Your task to perform on an android device: turn on location history Image 0: 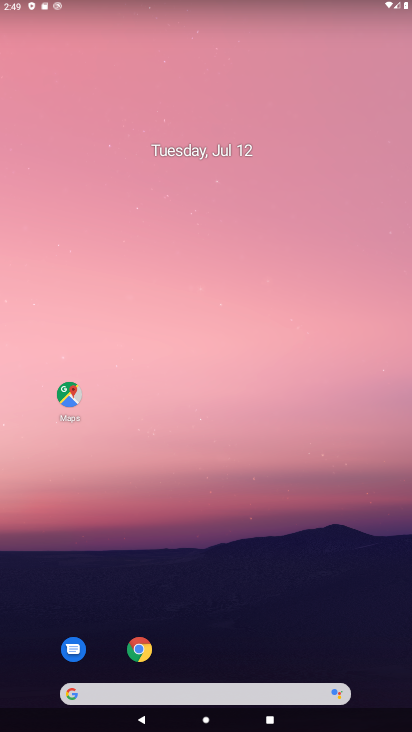
Step 0: click (208, 316)
Your task to perform on an android device: turn on location history Image 1: 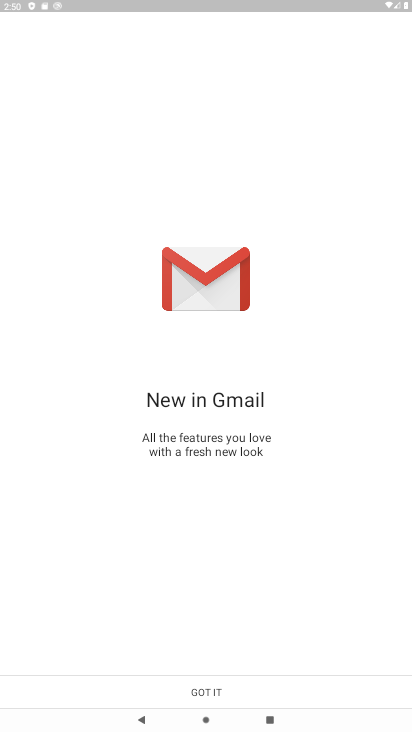
Step 1: press home button
Your task to perform on an android device: turn on location history Image 2: 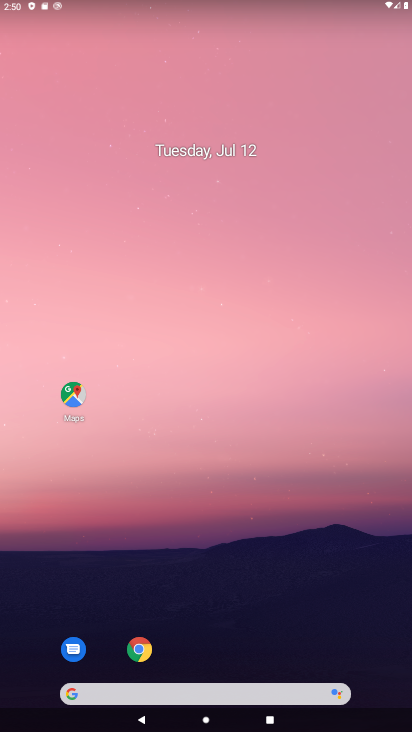
Step 2: drag from (194, 693) to (211, 97)
Your task to perform on an android device: turn on location history Image 3: 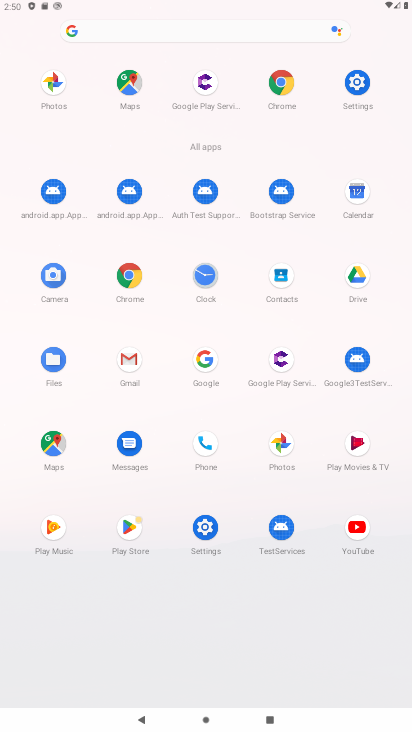
Step 3: click (348, 88)
Your task to perform on an android device: turn on location history Image 4: 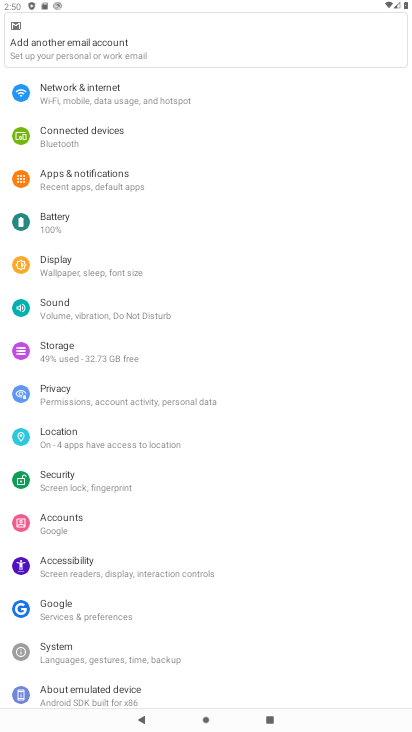
Step 4: click (70, 441)
Your task to perform on an android device: turn on location history Image 5: 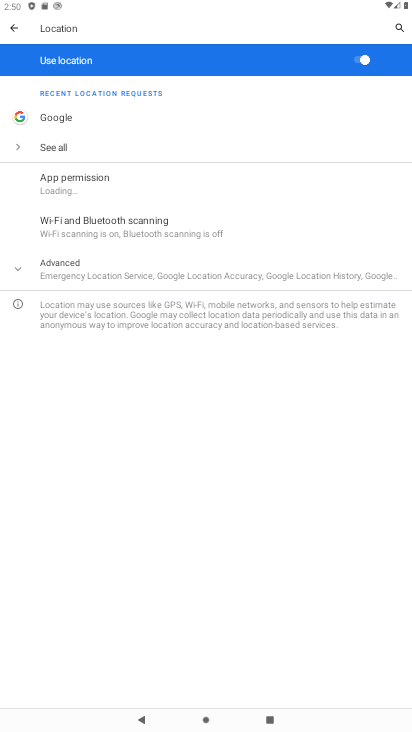
Step 5: click (53, 279)
Your task to perform on an android device: turn on location history Image 6: 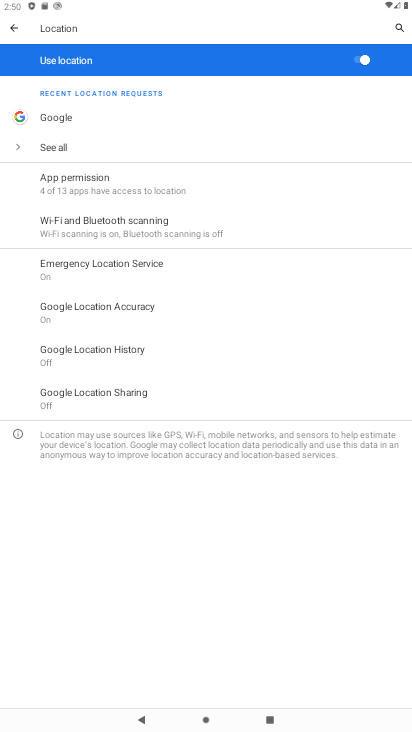
Step 6: click (145, 346)
Your task to perform on an android device: turn on location history Image 7: 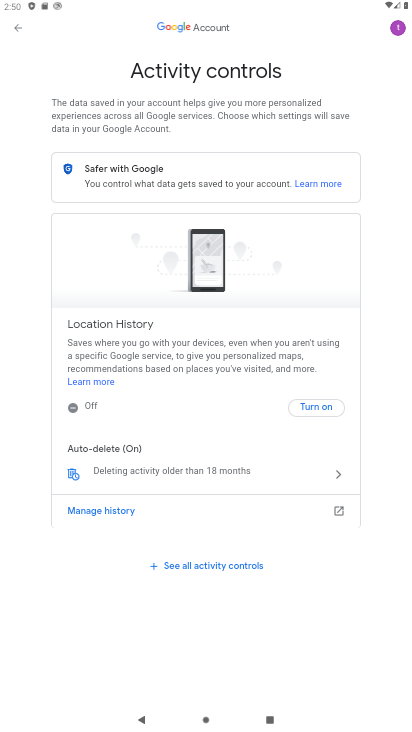
Step 7: click (321, 398)
Your task to perform on an android device: turn on location history Image 8: 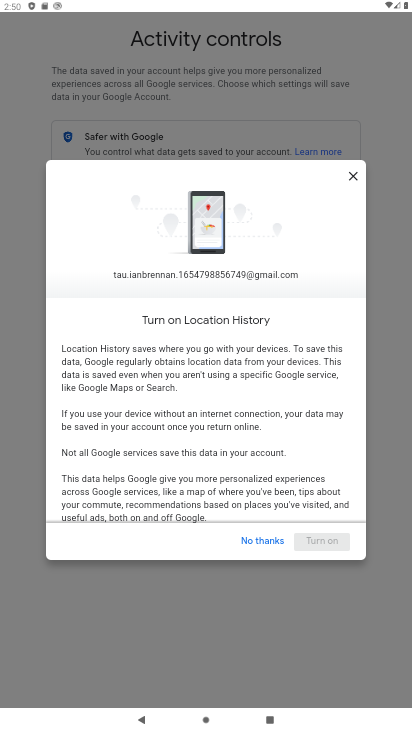
Step 8: drag from (293, 468) to (302, 192)
Your task to perform on an android device: turn on location history Image 9: 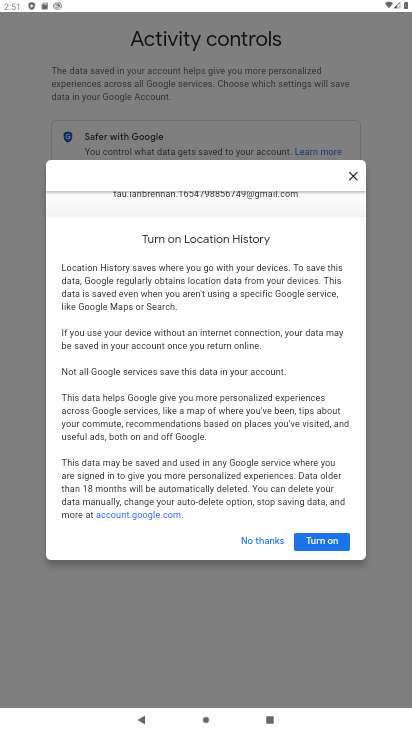
Step 9: click (326, 537)
Your task to perform on an android device: turn on location history Image 10: 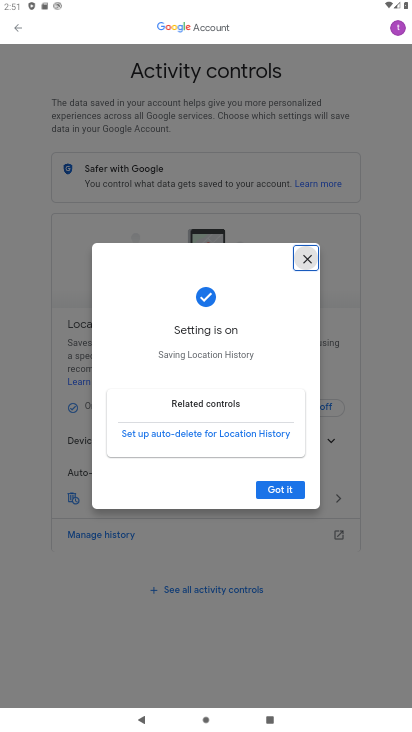
Step 10: click (279, 492)
Your task to perform on an android device: turn on location history Image 11: 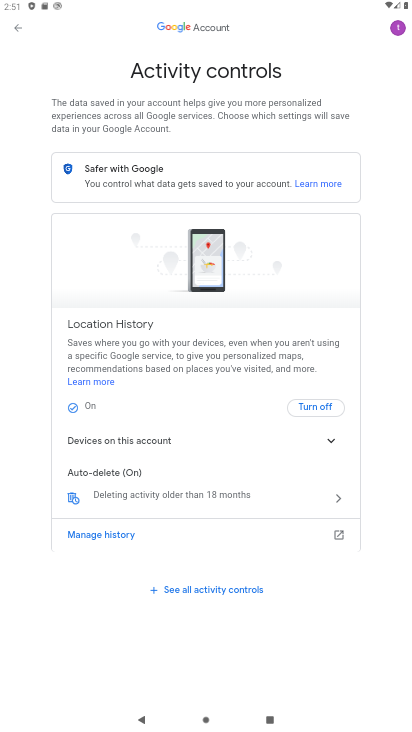
Step 11: task complete